Your task to perform on an android device: Open network settings Image 0: 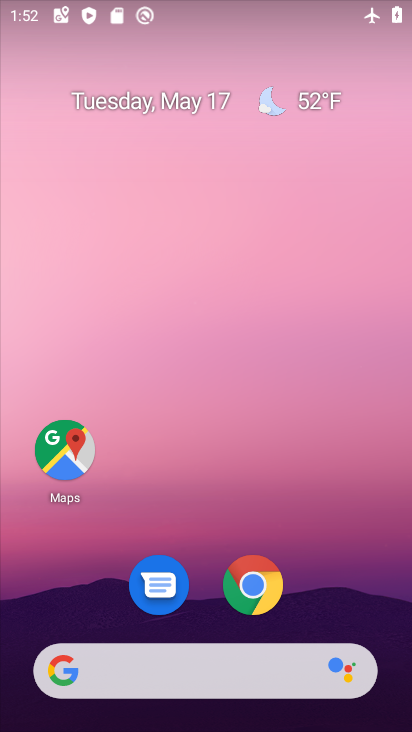
Step 0: drag from (344, 545) to (325, 42)
Your task to perform on an android device: Open network settings Image 1: 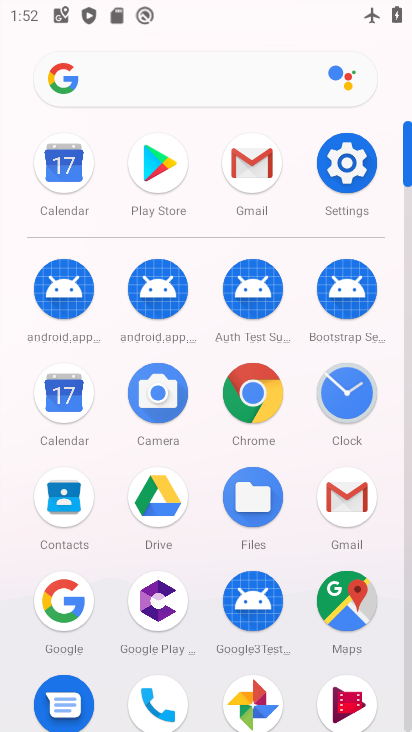
Step 1: click (356, 162)
Your task to perform on an android device: Open network settings Image 2: 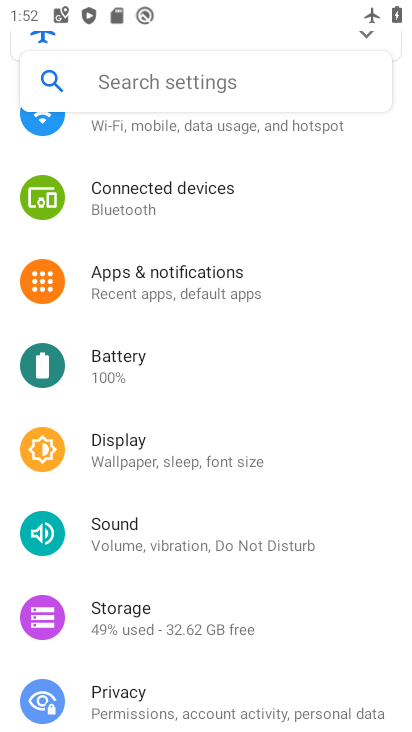
Step 2: drag from (242, 250) to (234, 361)
Your task to perform on an android device: Open network settings Image 3: 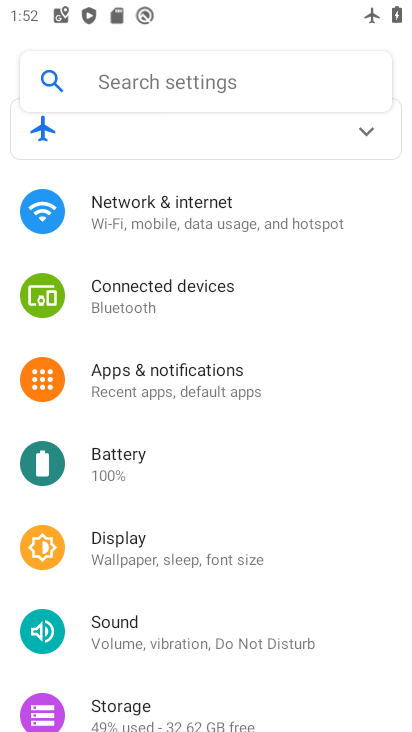
Step 3: click (230, 208)
Your task to perform on an android device: Open network settings Image 4: 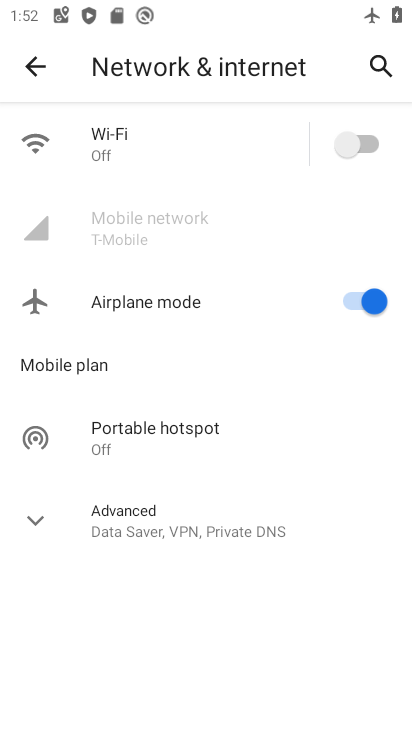
Step 4: task complete